Your task to perform on an android device: turn on wifi Image 0: 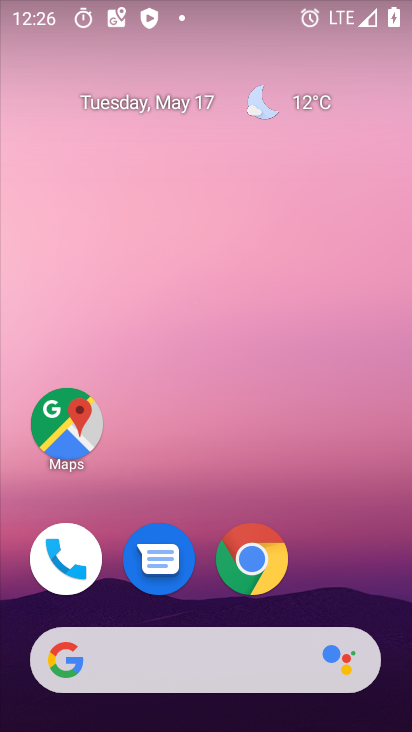
Step 0: drag from (341, 541) to (347, 141)
Your task to perform on an android device: turn on wifi Image 1: 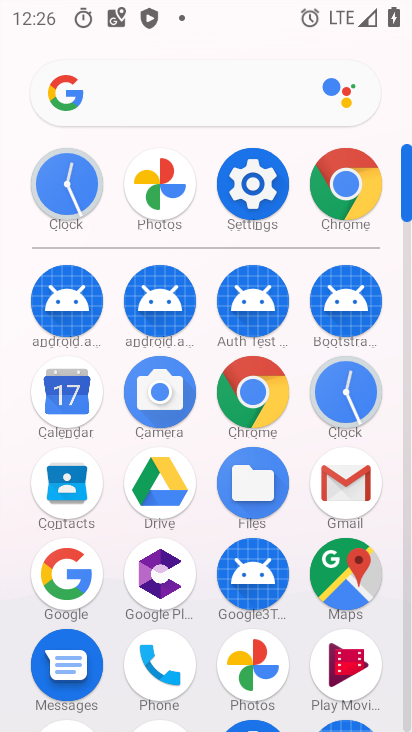
Step 1: click (260, 200)
Your task to perform on an android device: turn on wifi Image 2: 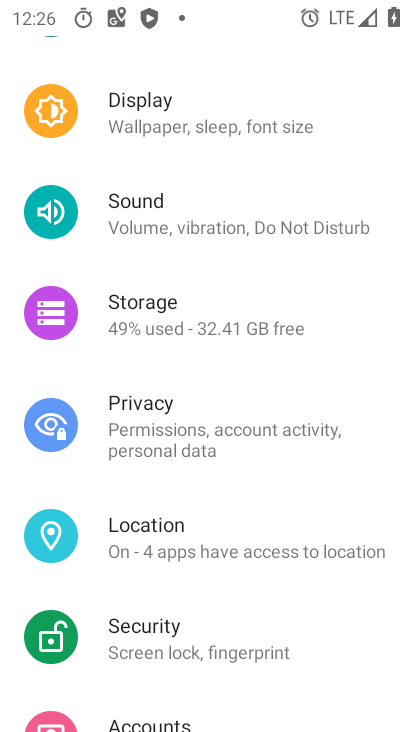
Step 2: drag from (227, 153) to (237, 694)
Your task to perform on an android device: turn on wifi Image 3: 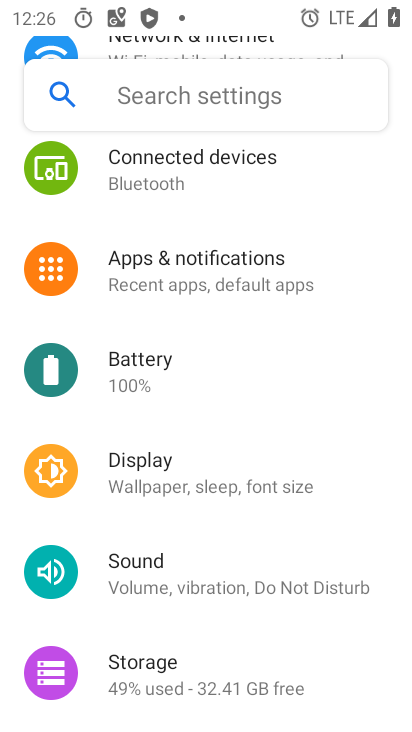
Step 3: drag from (247, 229) to (250, 600)
Your task to perform on an android device: turn on wifi Image 4: 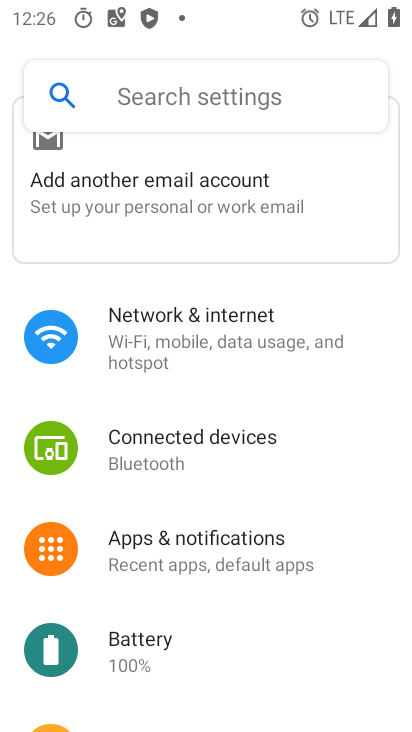
Step 4: click (181, 318)
Your task to perform on an android device: turn on wifi Image 5: 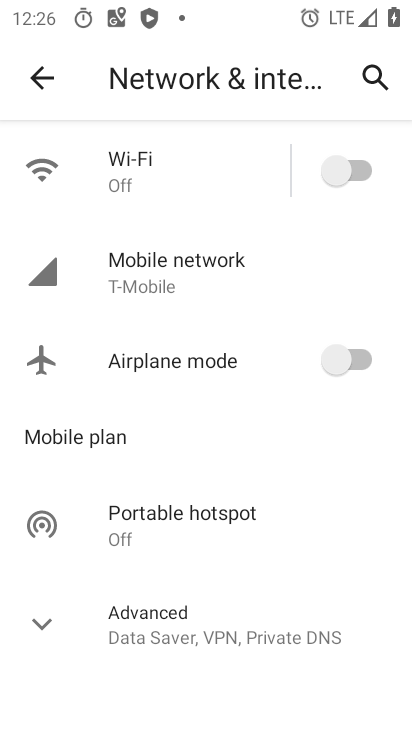
Step 5: click (351, 166)
Your task to perform on an android device: turn on wifi Image 6: 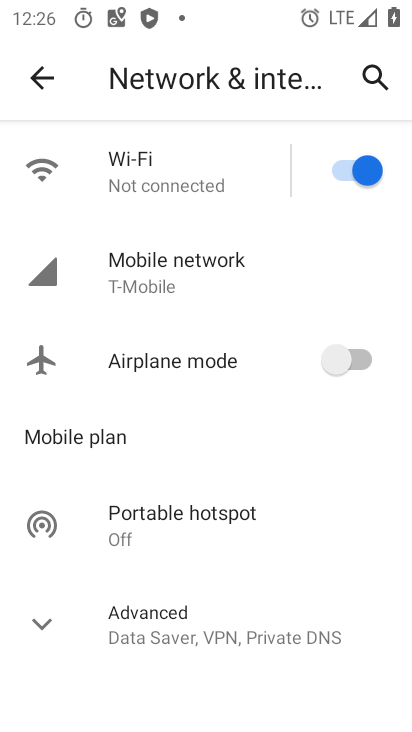
Step 6: task complete